Your task to perform on an android device: Open Chrome and go to settings Image 0: 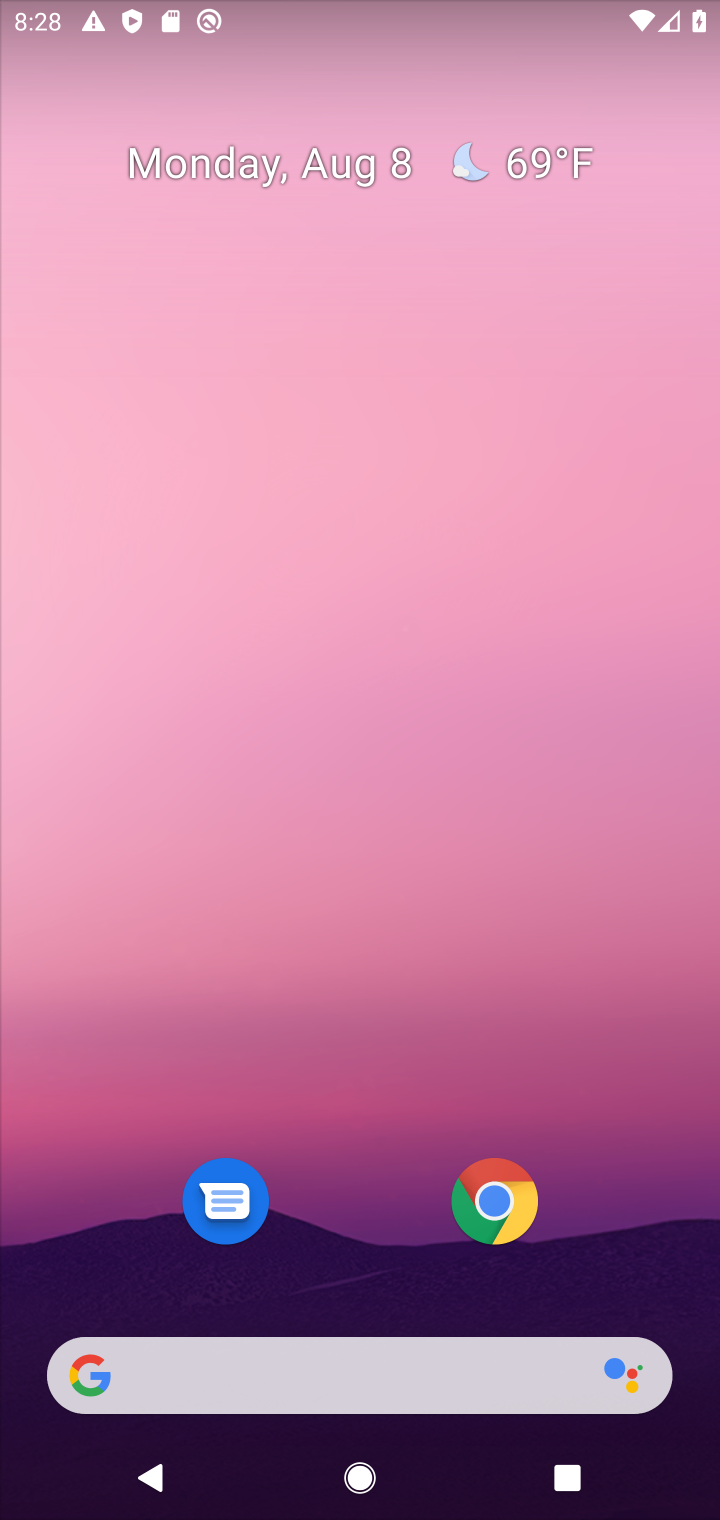
Step 0: press home button
Your task to perform on an android device: Open Chrome and go to settings Image 1: 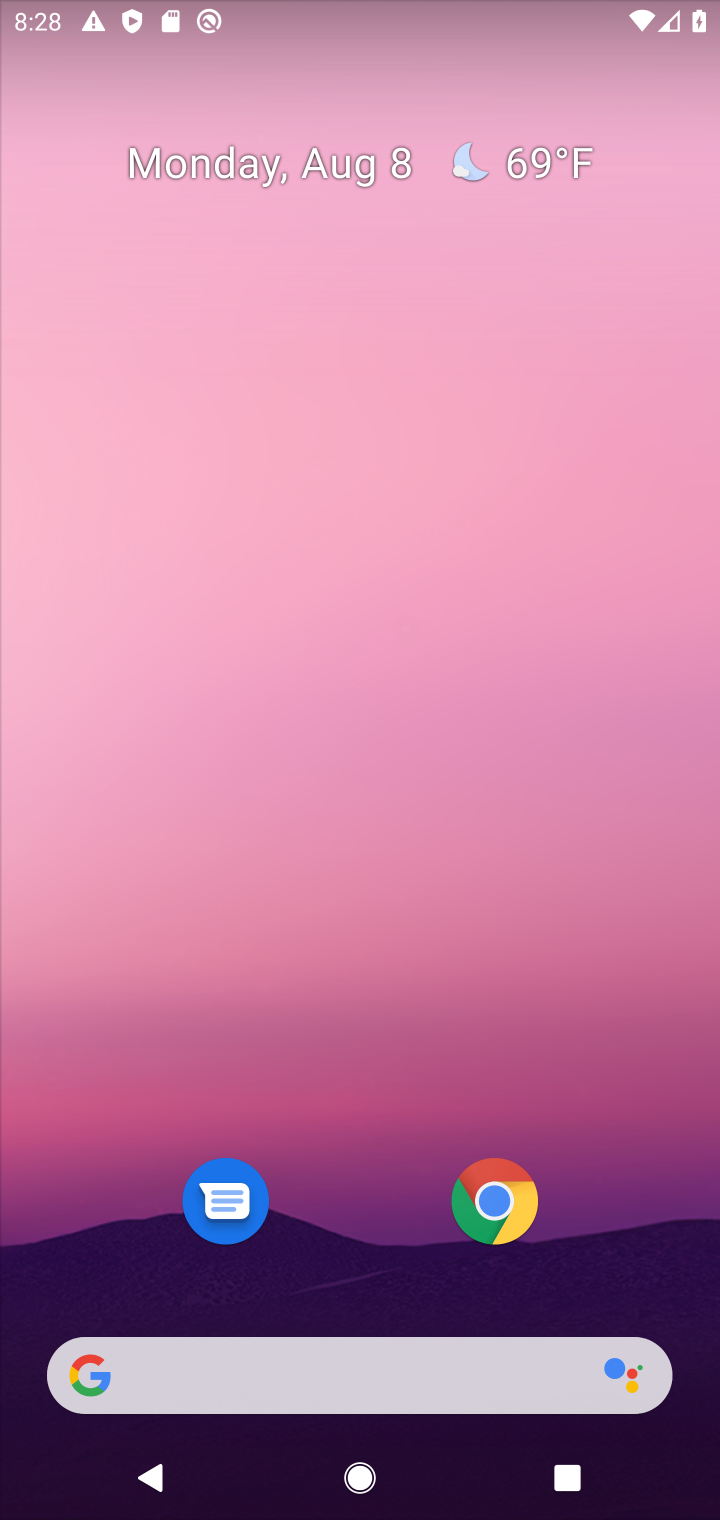
Step 1: drag from (379, 1221) to (460, 376)
Your task to perform on an android device: Open Chrome and go to settings Image 2: 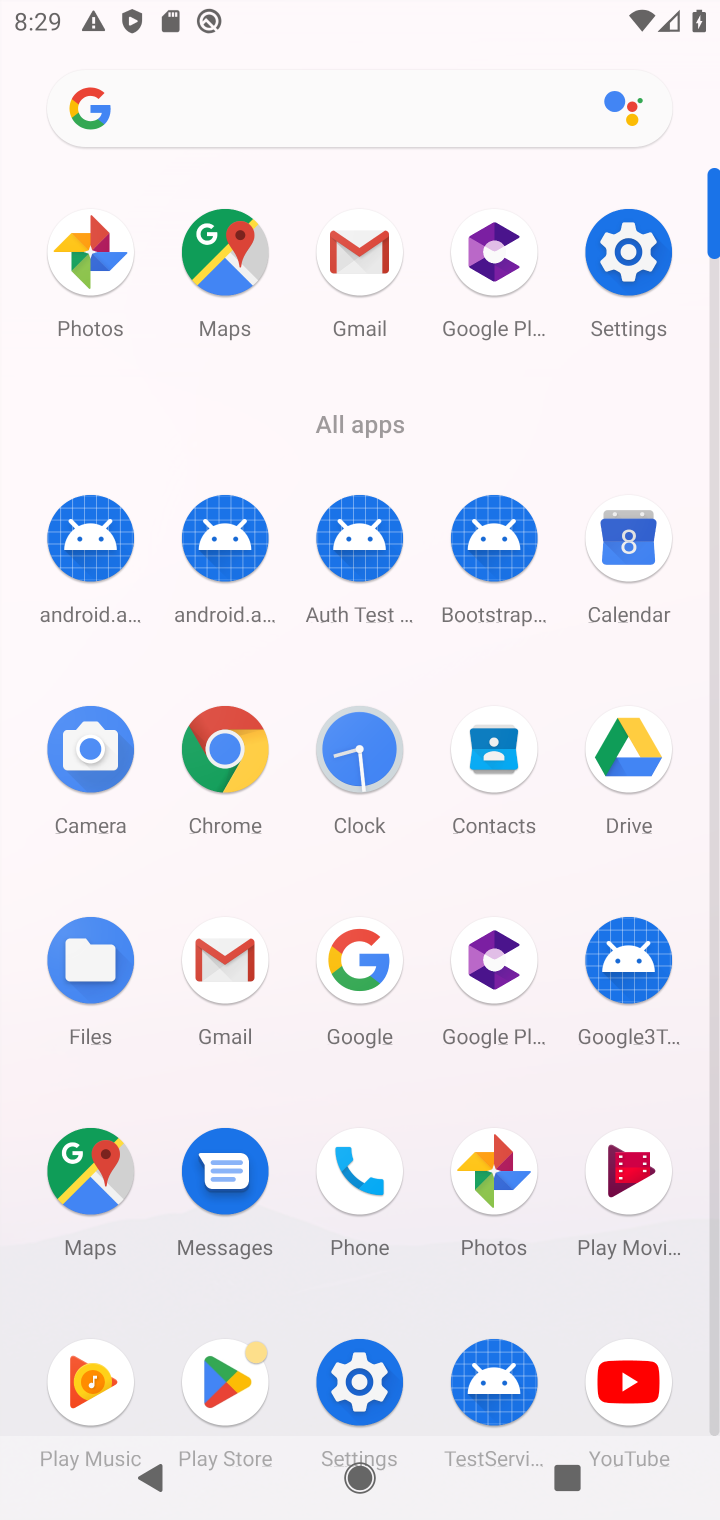
Step 2: click (217, 750)
Your task to perform on an android device: Open Chrome and go to settings Image 3: 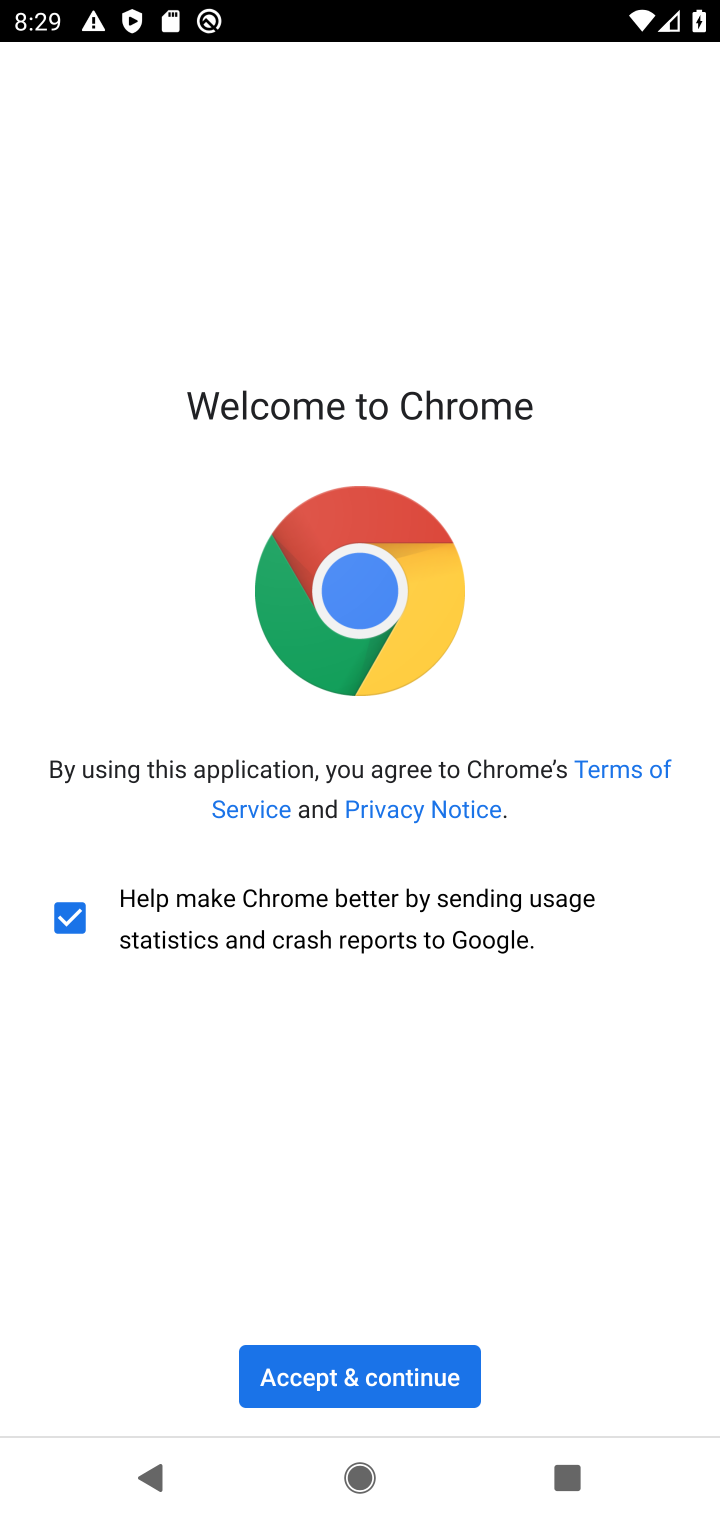
Step 3: click (362, 1376)
Your task to perform on an android device: Open Chrome and go to settings Image 4: 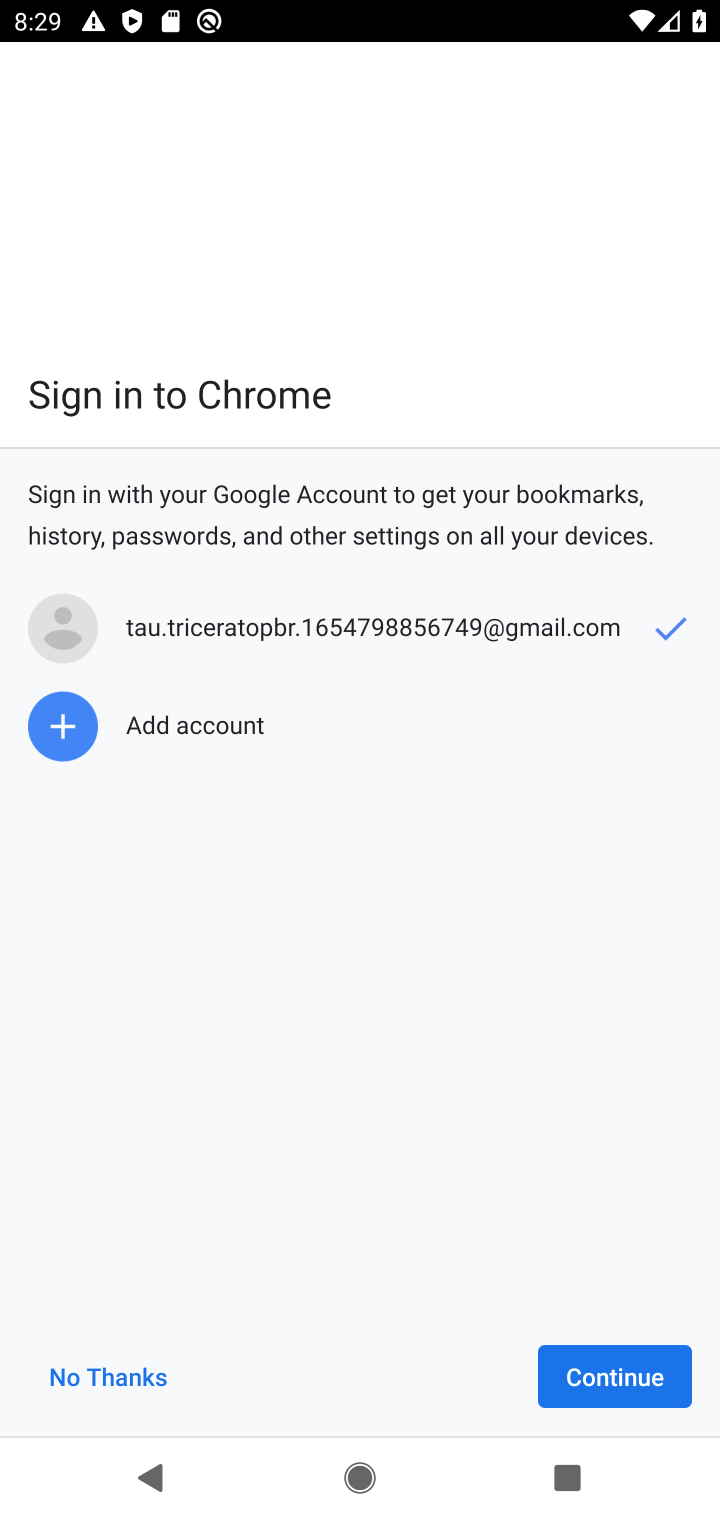
Step 4: click (606, 1379)
Your task to perform on an android device: Open Chrome and go to settings Image 5: 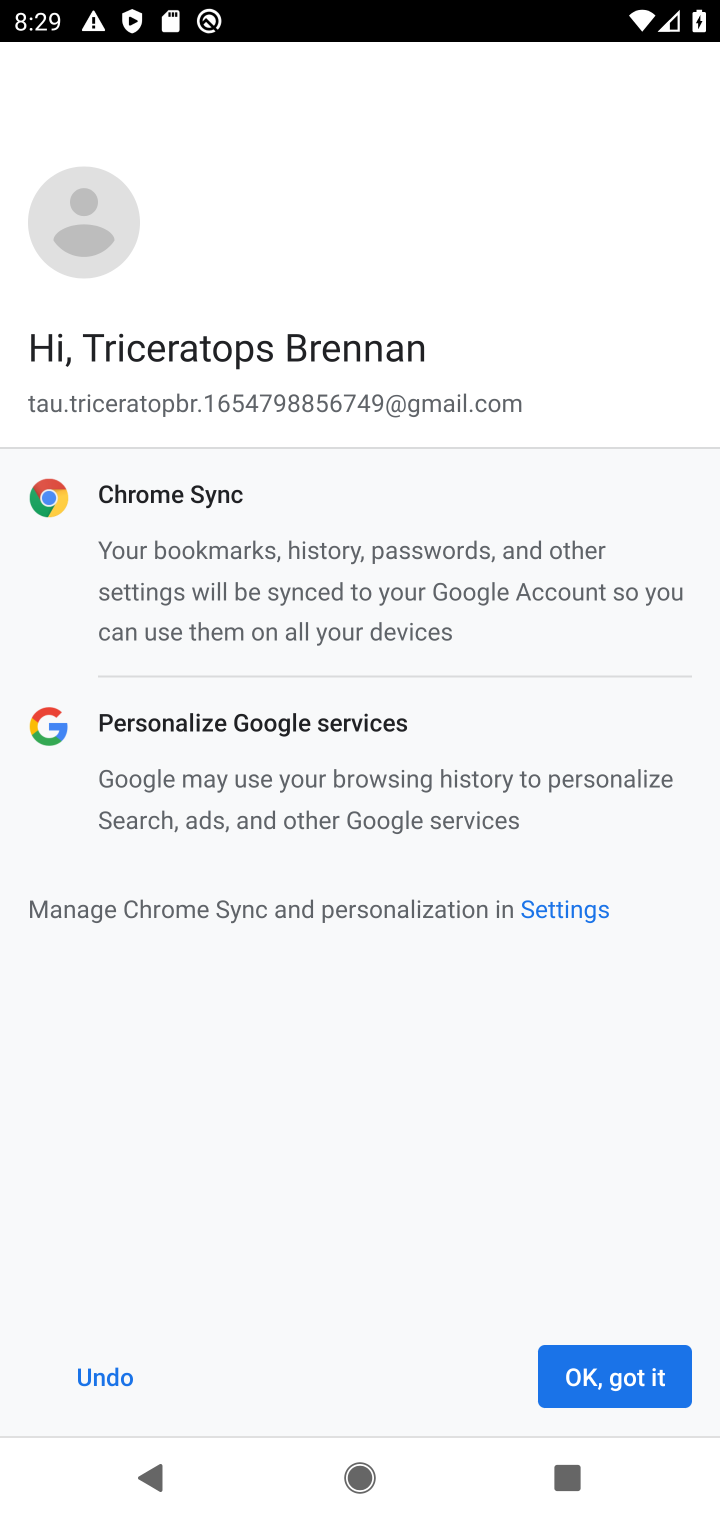
Step 5: click (633, 1371)
Your task to perform on an android device: Open Chrome and go to settings Image 6: 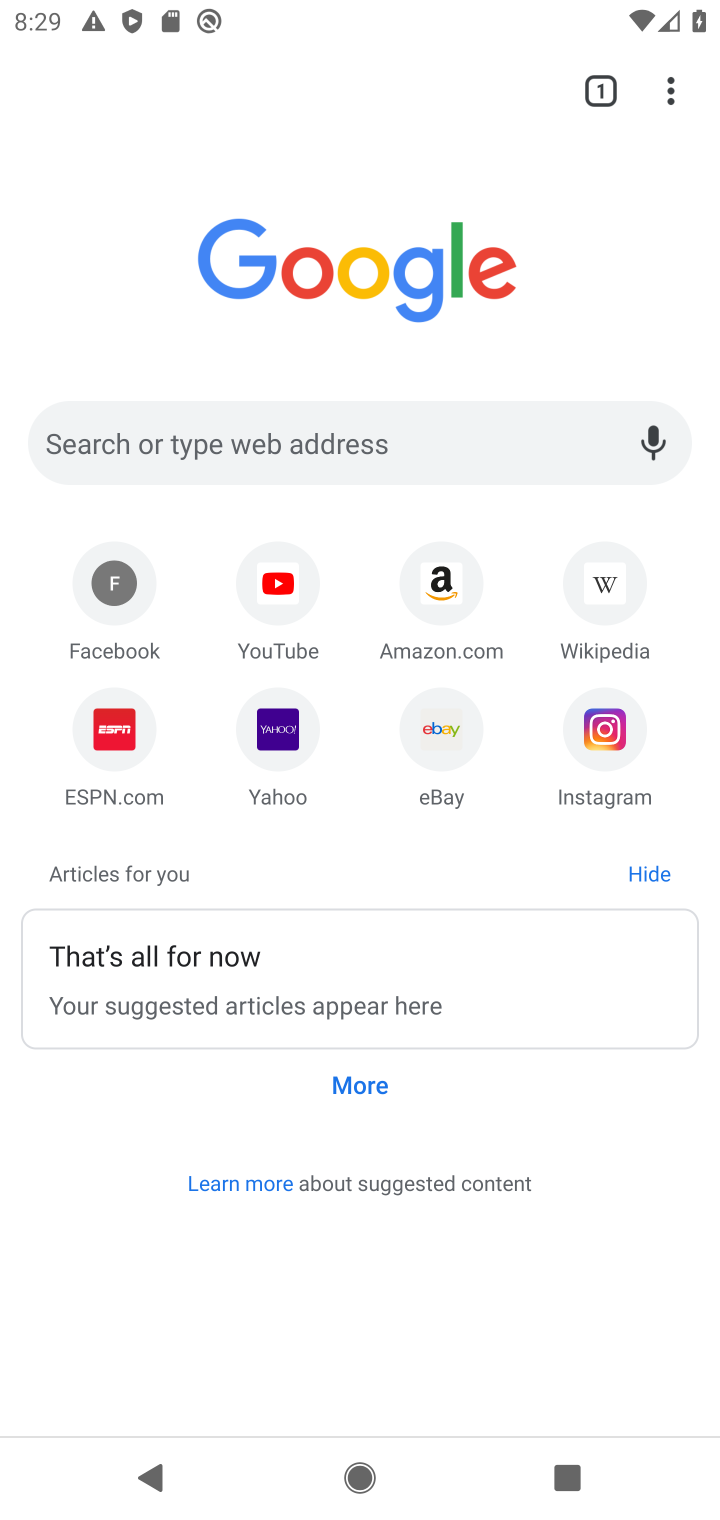
Step 6: click (664, 89)
Your task to perform on an android device: Open Chrome and go to settings Image 7: 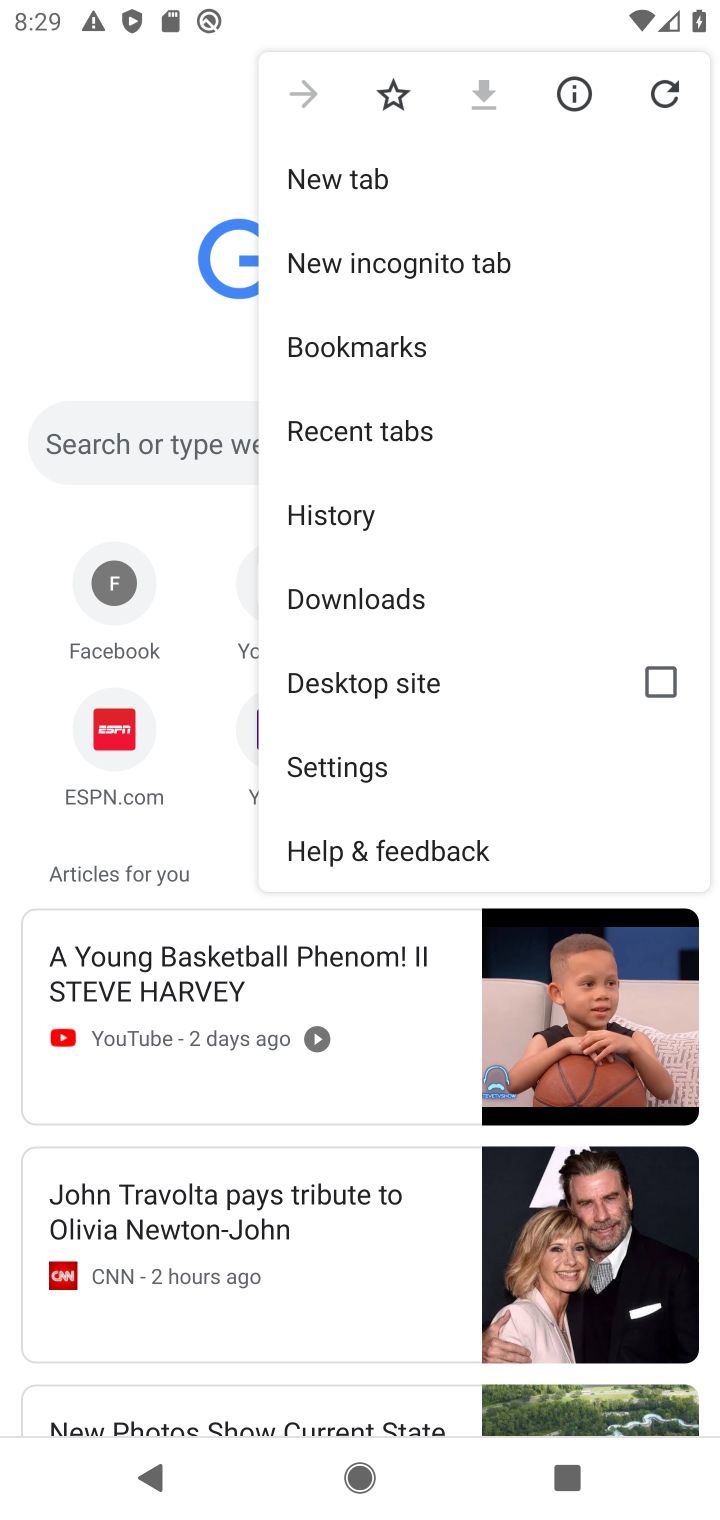
Step 7: click (359, 772)
Your task to perform on an android device: Open Chrome and go to settings Image 8: 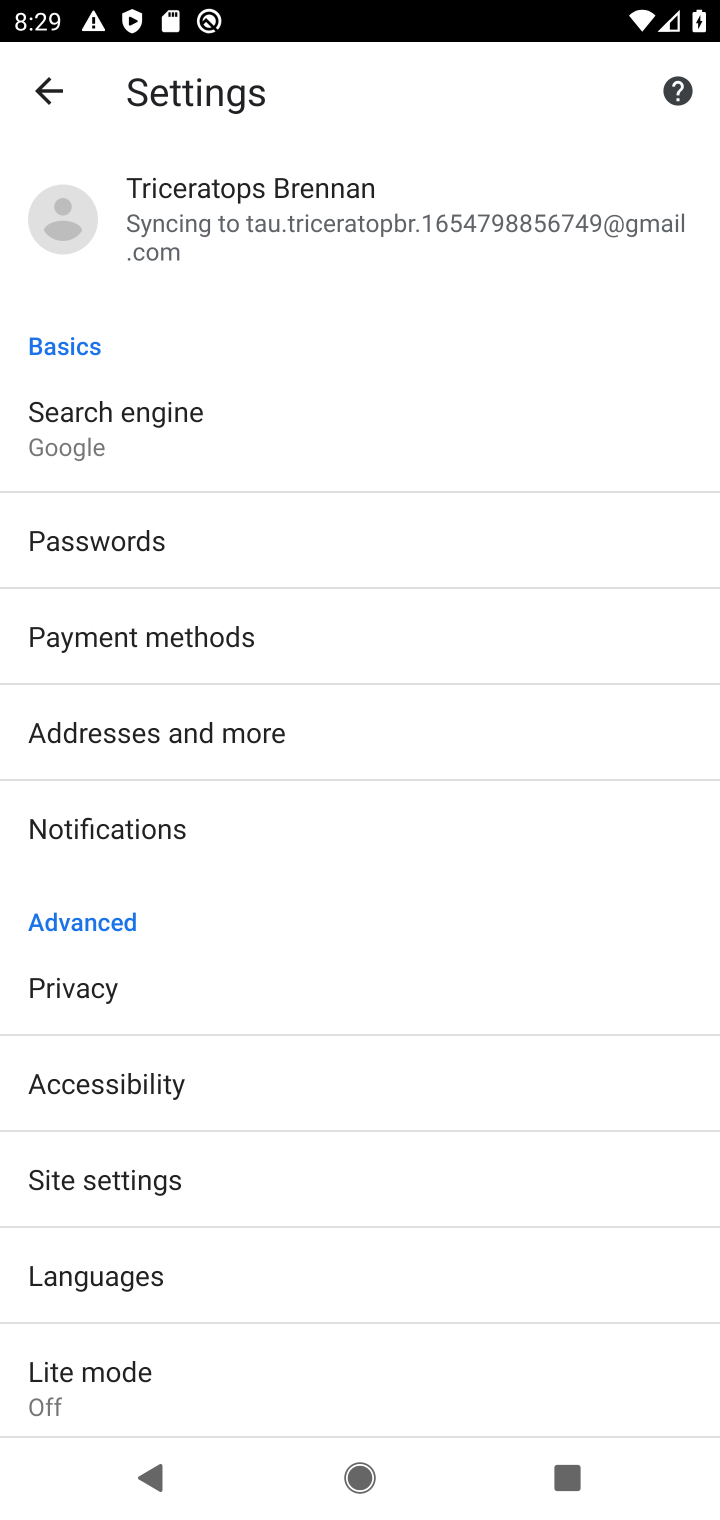
Step 8: task complete